Your task to perform on an android device: install app "Indeed Job Search" Image 0: 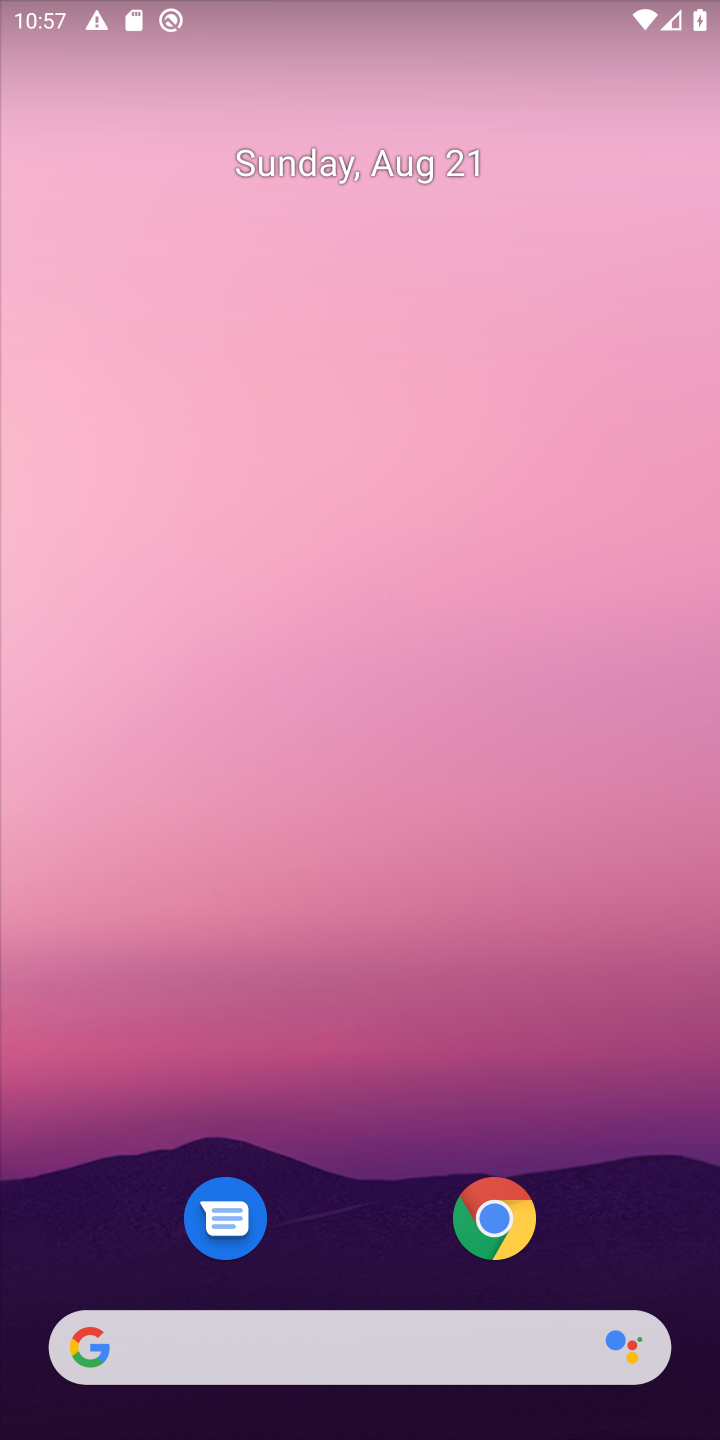
Step 0: drag from (341, 990) to (379, 359)
Your task to perform on an android device: install app "Indeed Job Search" Image 1: 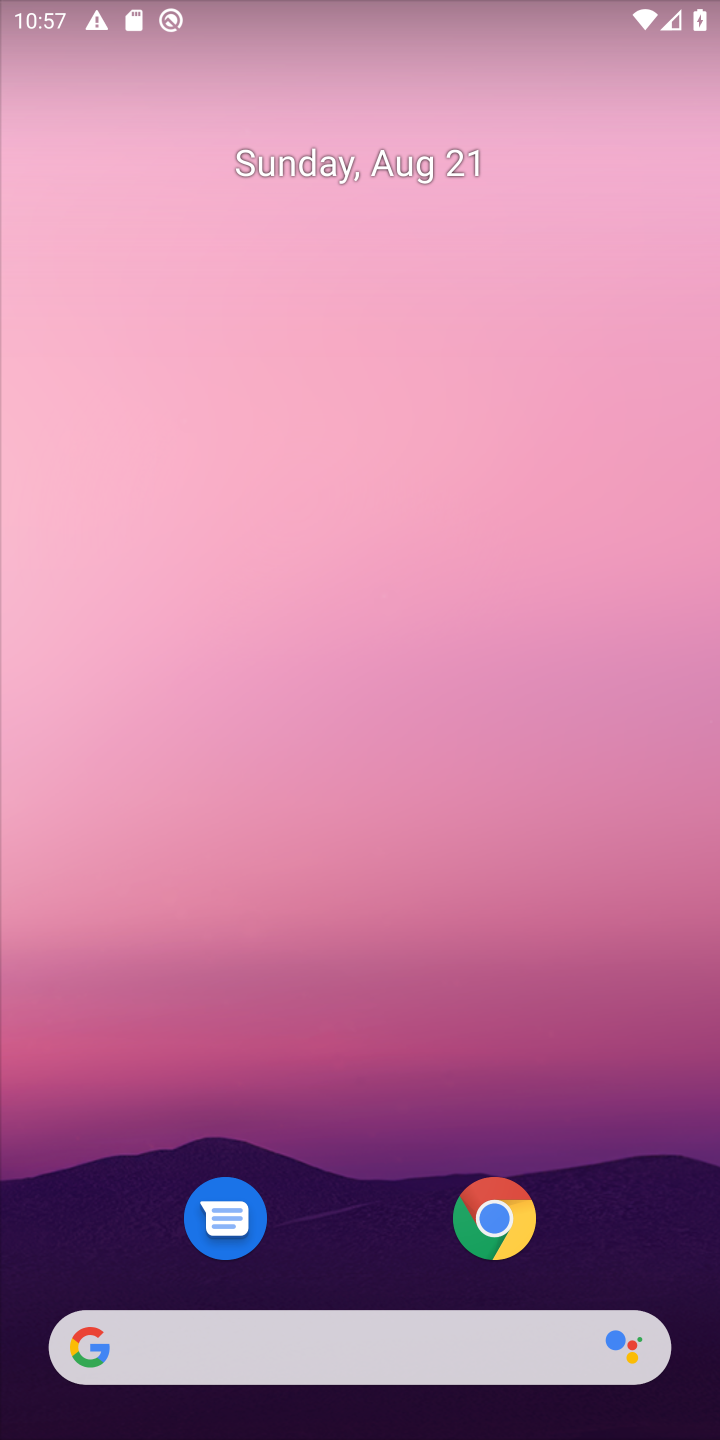
Step 1: drag from (514, 479) to (549, 226)
Your task to perform on an android device: install app "Indeed Job Search" Image 2: 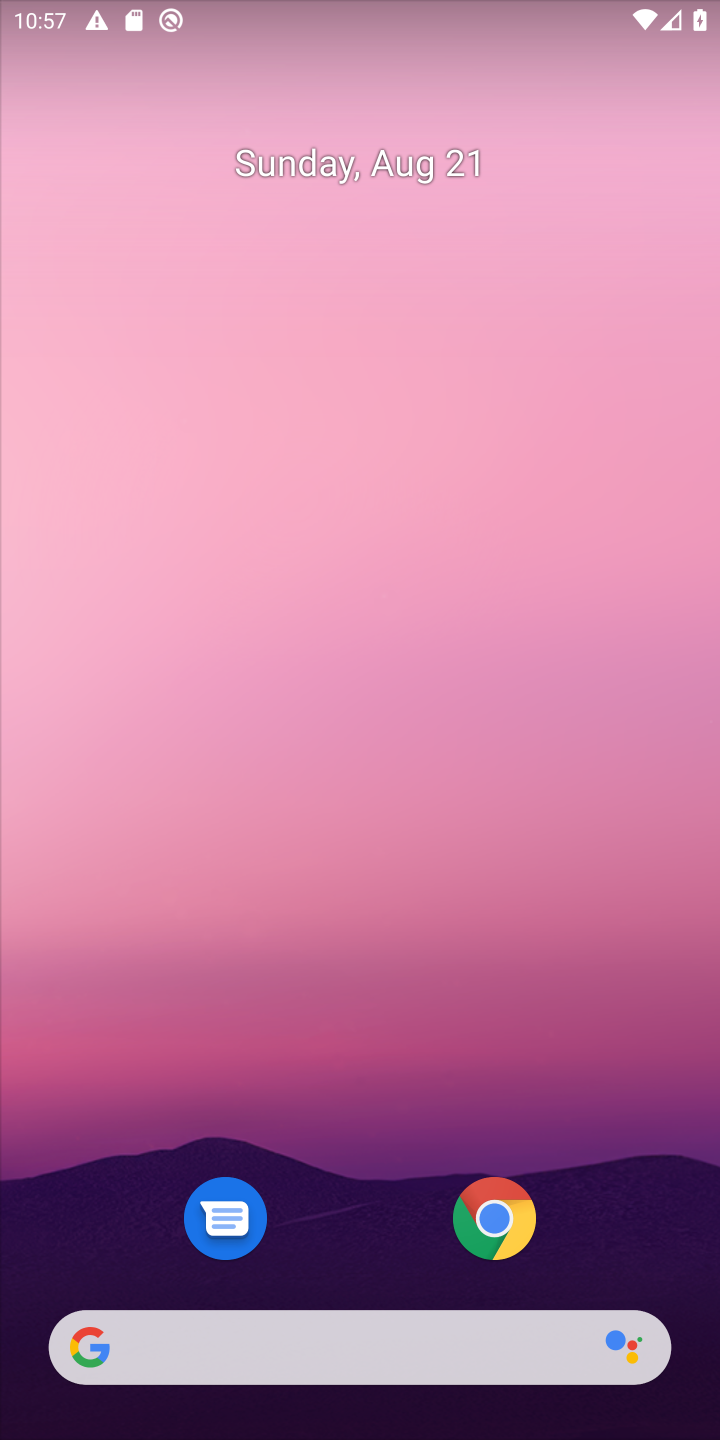
Step 2: drag from (532, 380) to (607, 81)
Your task to perform on an android device: install app "Indeed Job Search" Image 3: 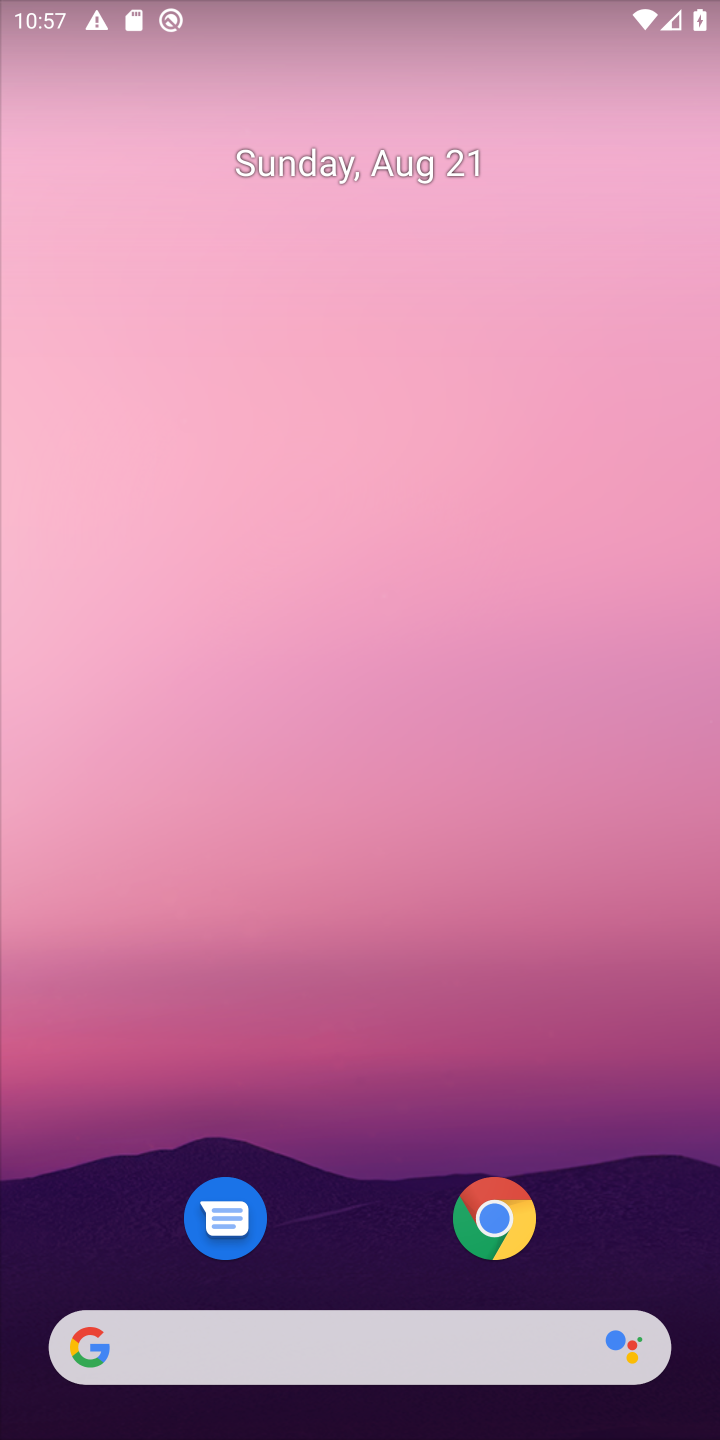
Step 3: drag from (351, 1316) to (564, 172)
Your task to perform on an android device: install app "Indeed Job Search" Image 4: 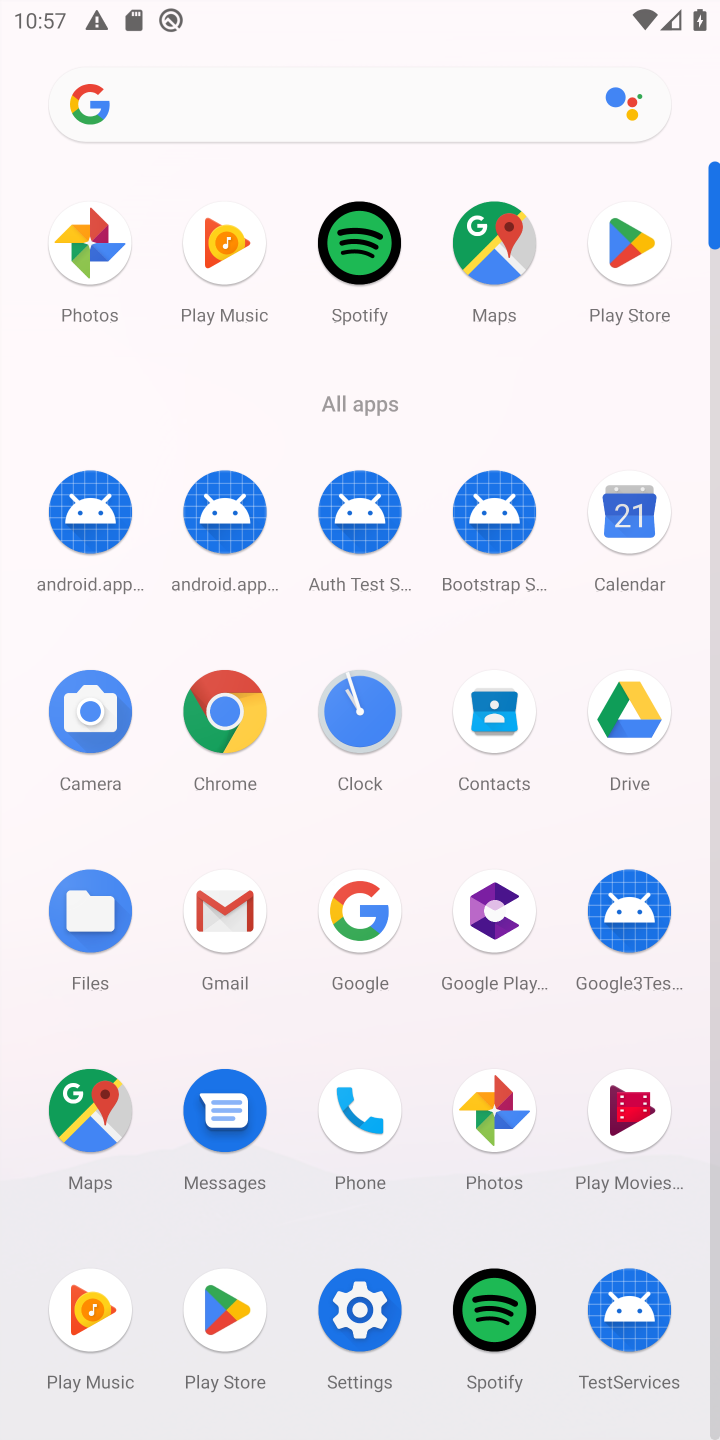
Step 4: click (224, 1324)
Your task to perform on an android device: install app "Indeed Job Search" Image 5: 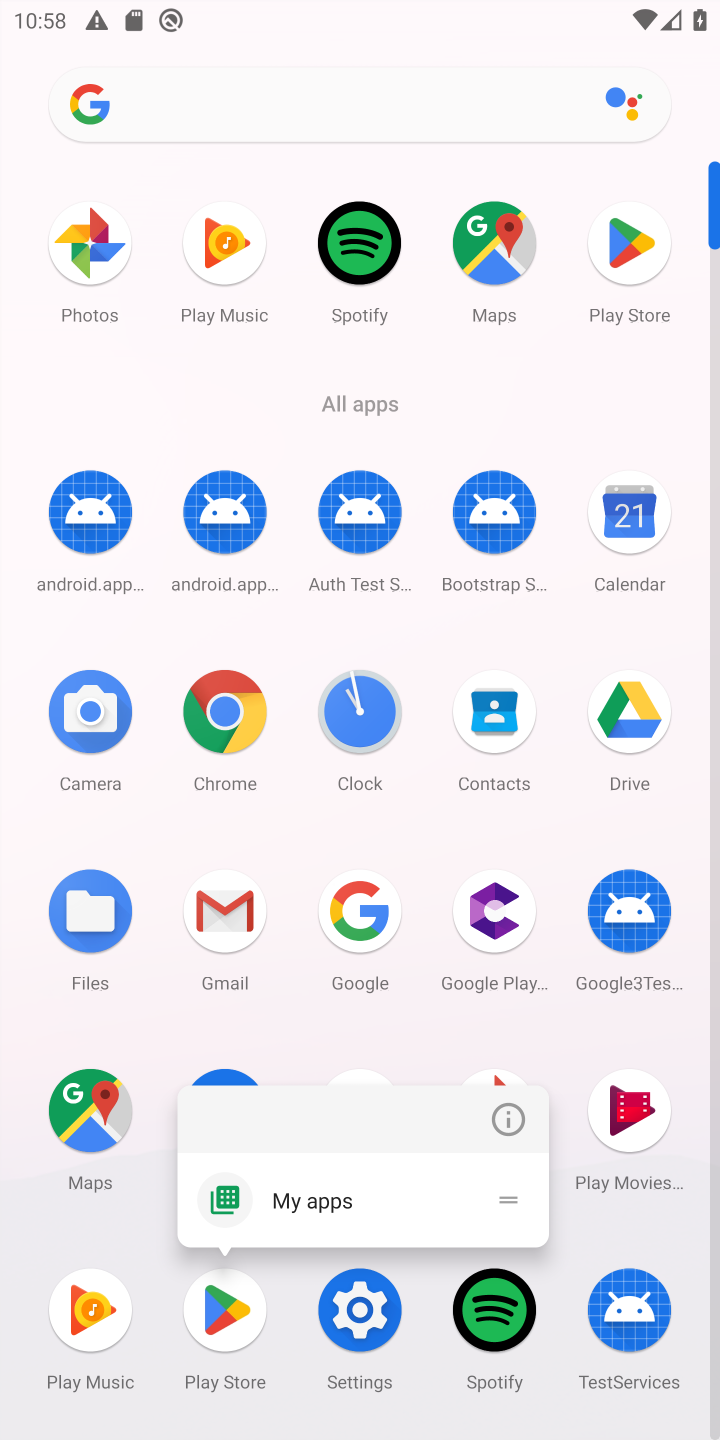
Step 5: click (219, 1309)
Your task to perform on an android device: install app "Indeed Job Search" Image 6: 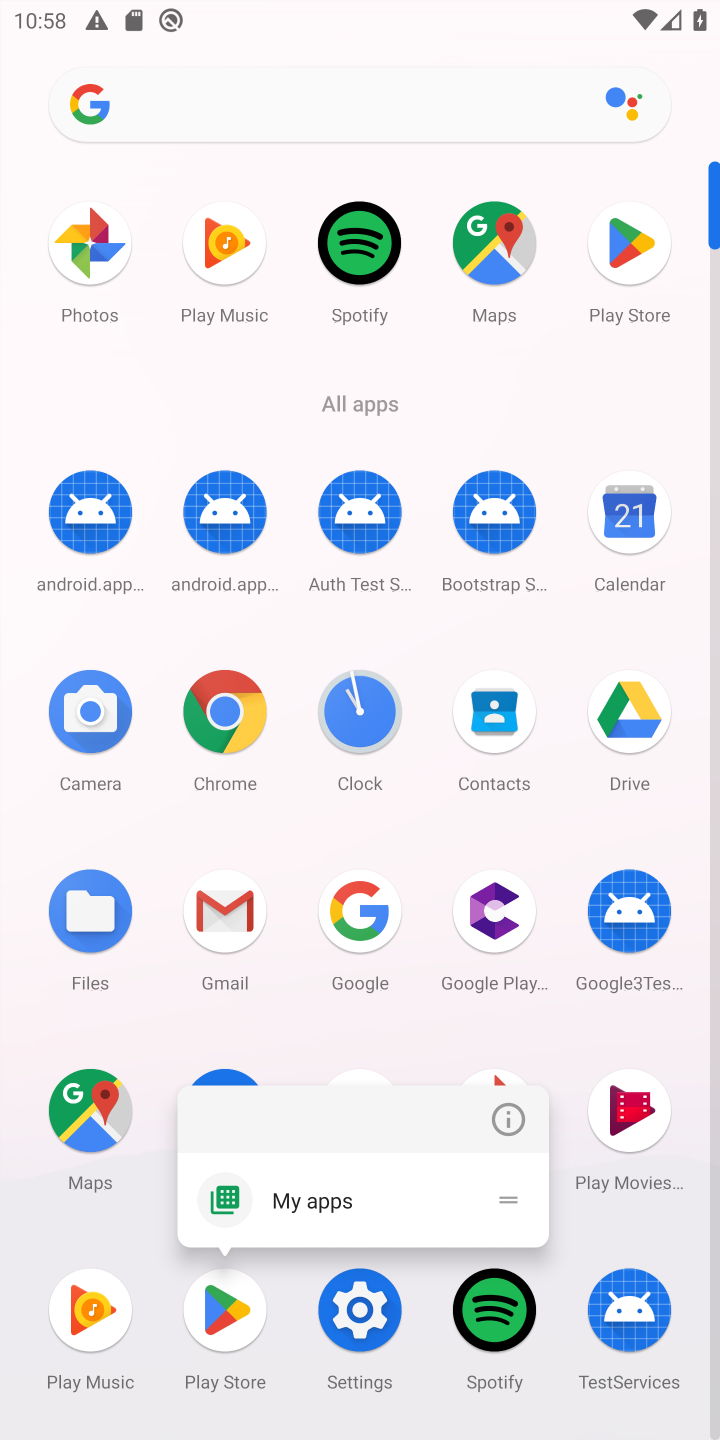
Step 6: click (219, 1309)
Your task to perform on an android device: install app "Indeed Job Search" Image 7: 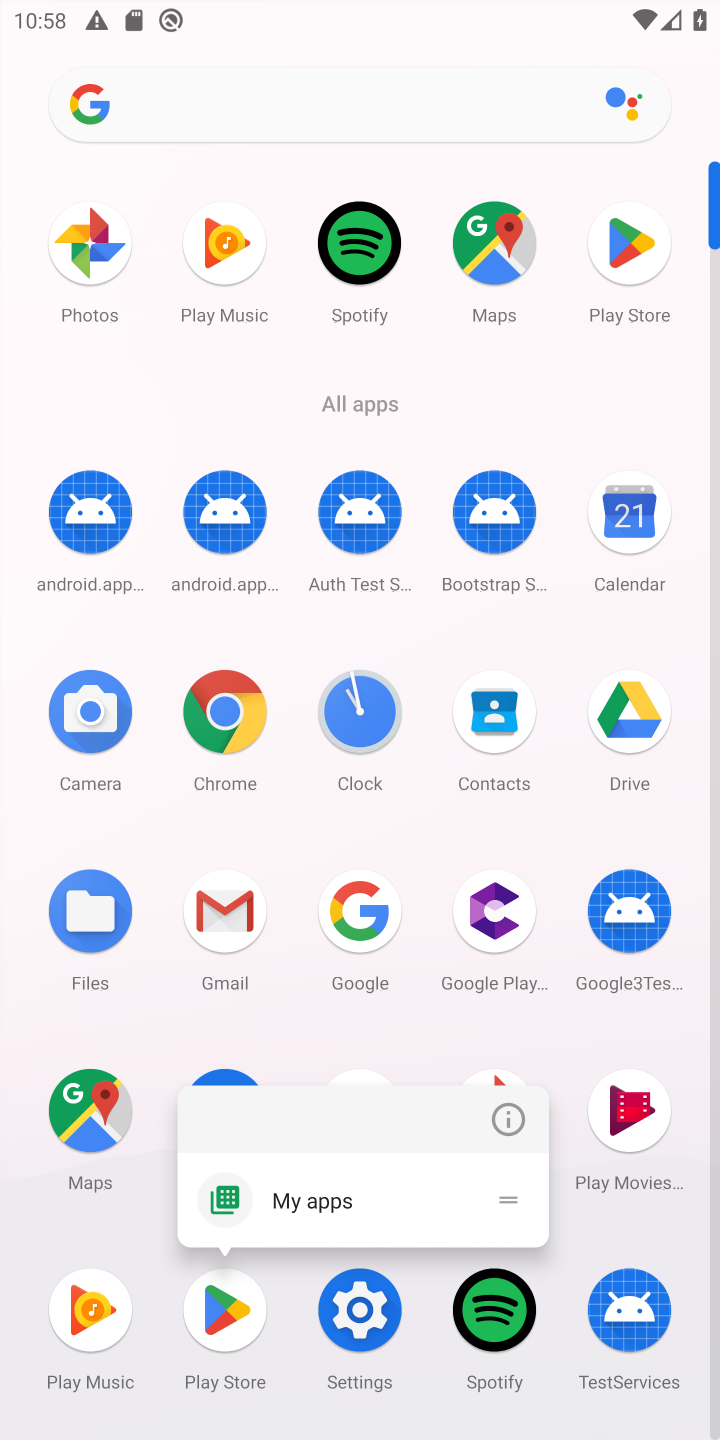
Step 7: click (221, 1311)
Your task to perform on an android device: install app "Indeed Job Search" Image 8: 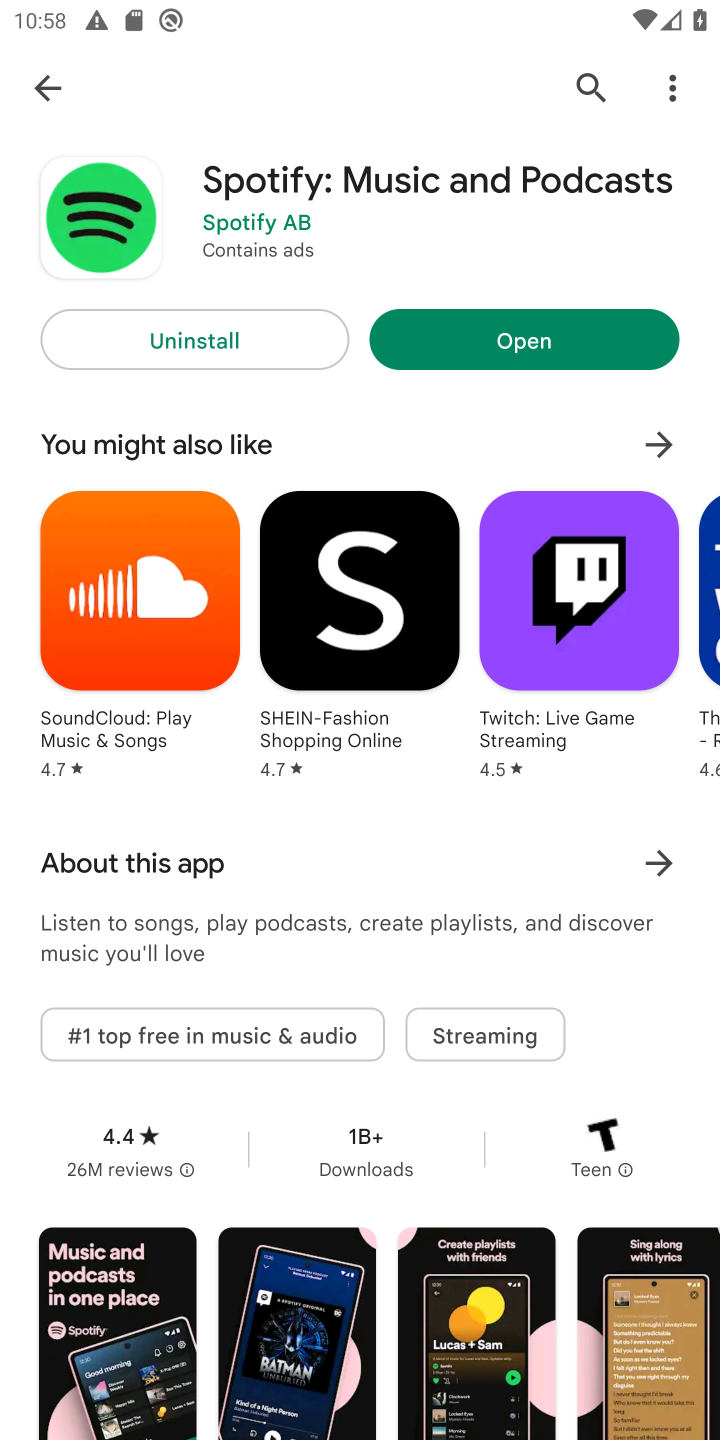
Step 8: click (564, 78)
Your task to perform on an android device: install app "Indeed Job Search" Image 9: 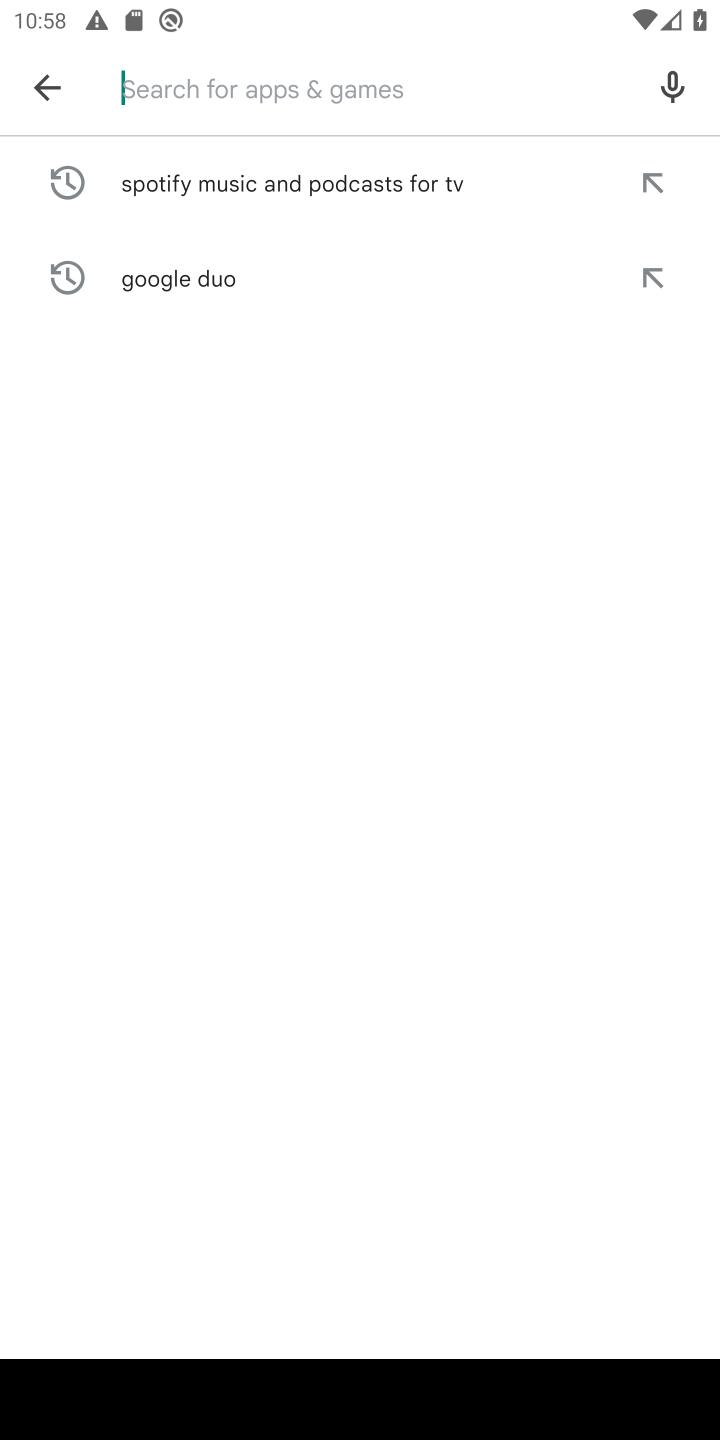
Step 9: type "Indeed Job Search"
Your task to perform on an android device: install app "Indeed Job Search" Image 10: 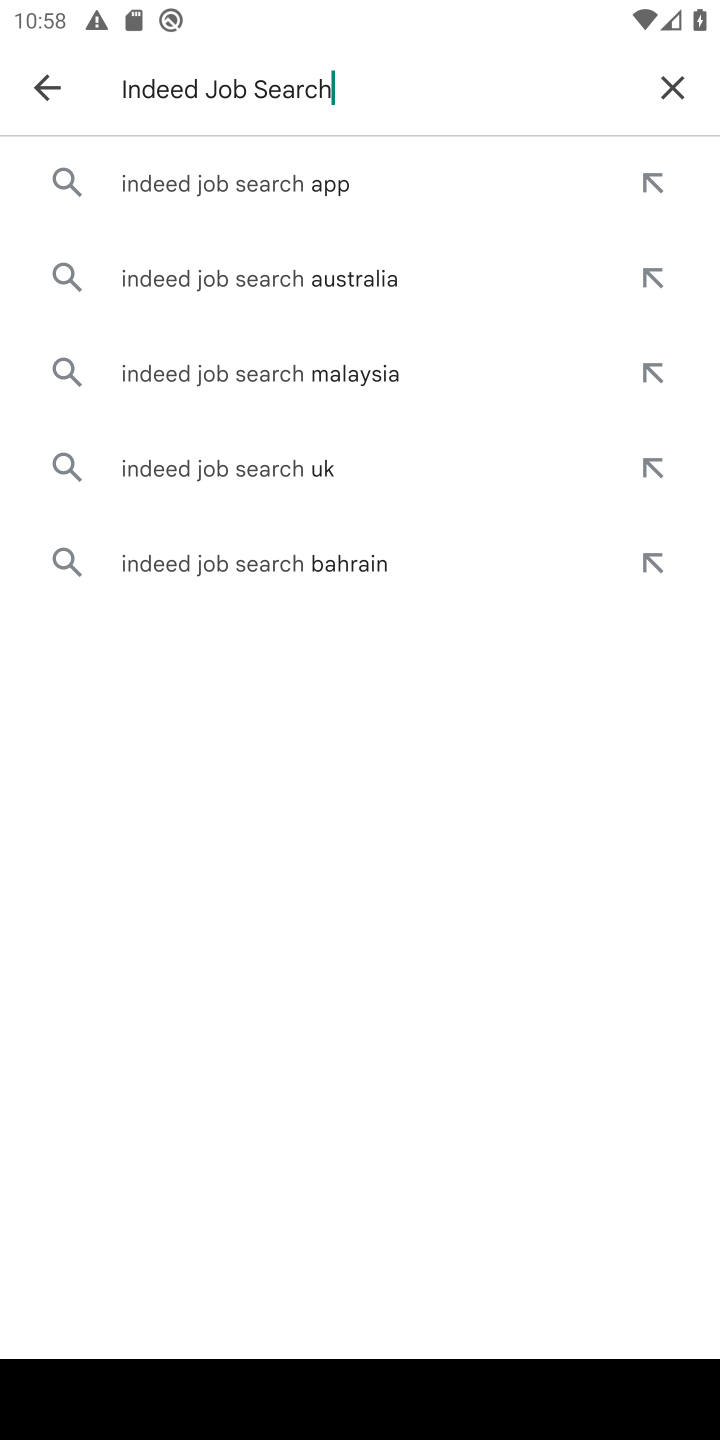
Step 10: click (331, 194)
Your task to perform on an android device: install app "Indeed Job Search" Image 11: 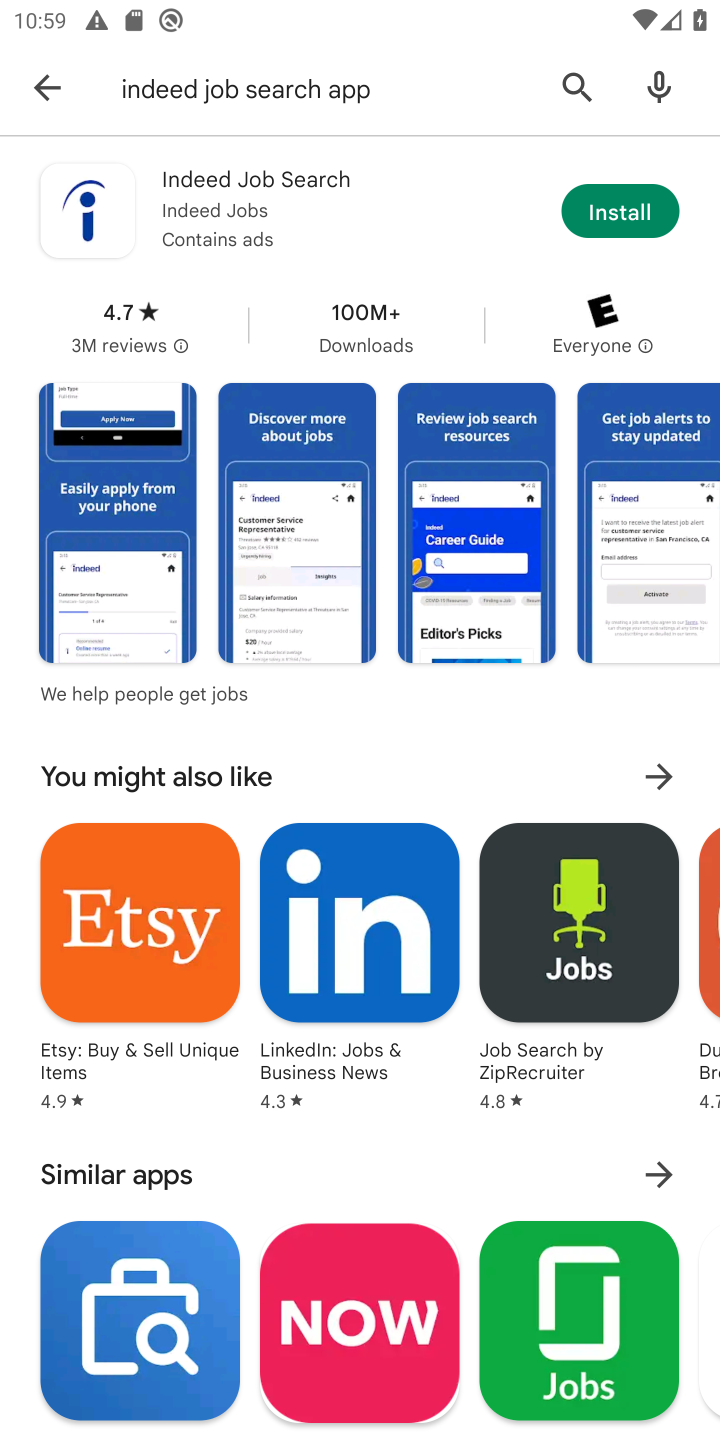
Step 11: click (649, 209)
Your task to perform on an android device: install app "Indeed Job Search" Image 12: 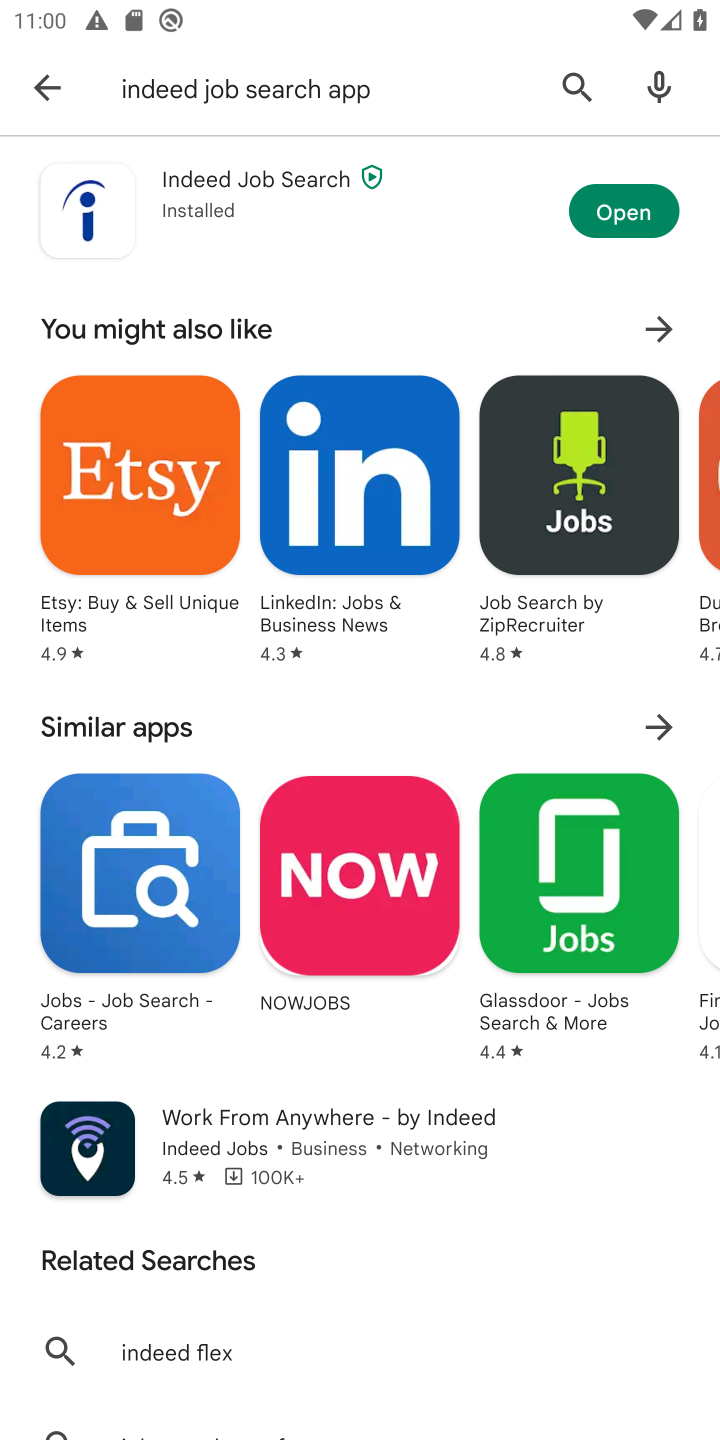
Step 12: click (610, 216)
Your task to perform on an android device: install app "Indeed Job Search" Image 13: 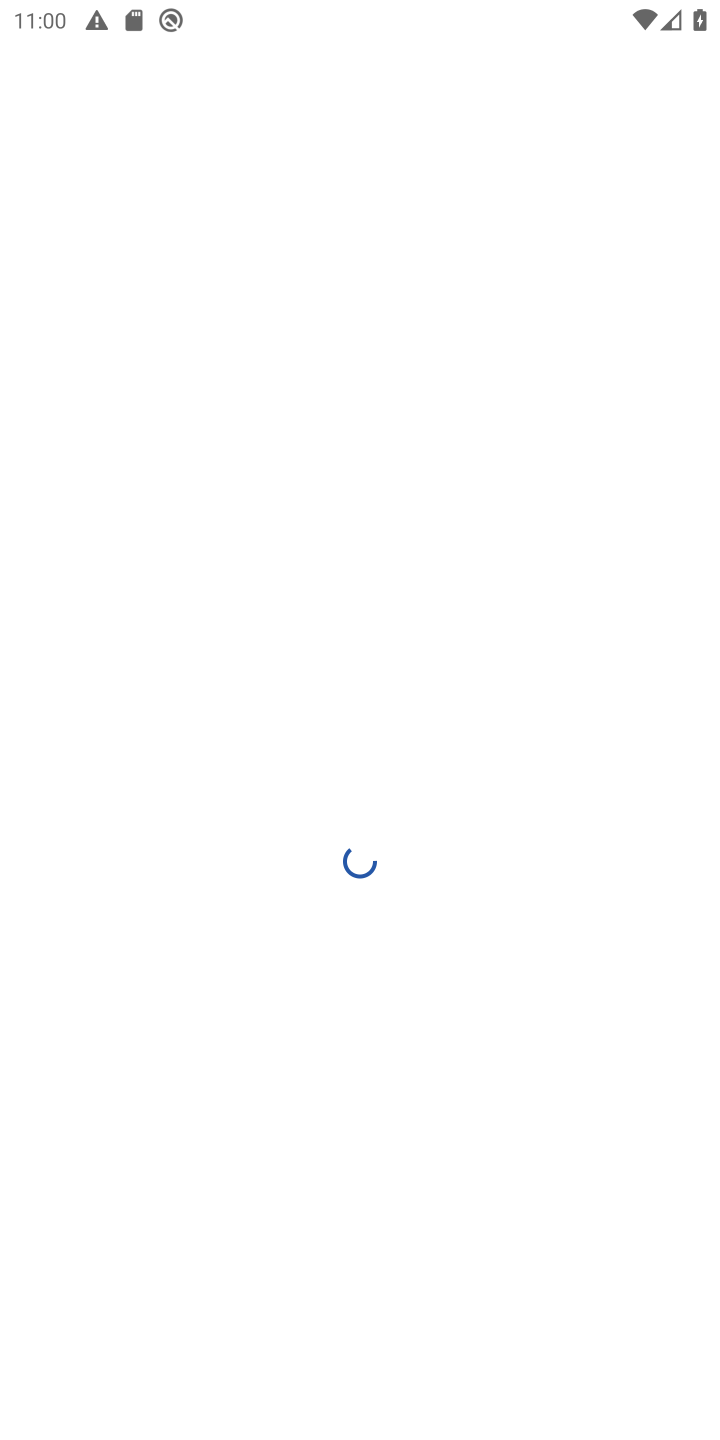
Step 13: task complete